Your task to perform on an android device: uninstall "AliExpress" Image 0: 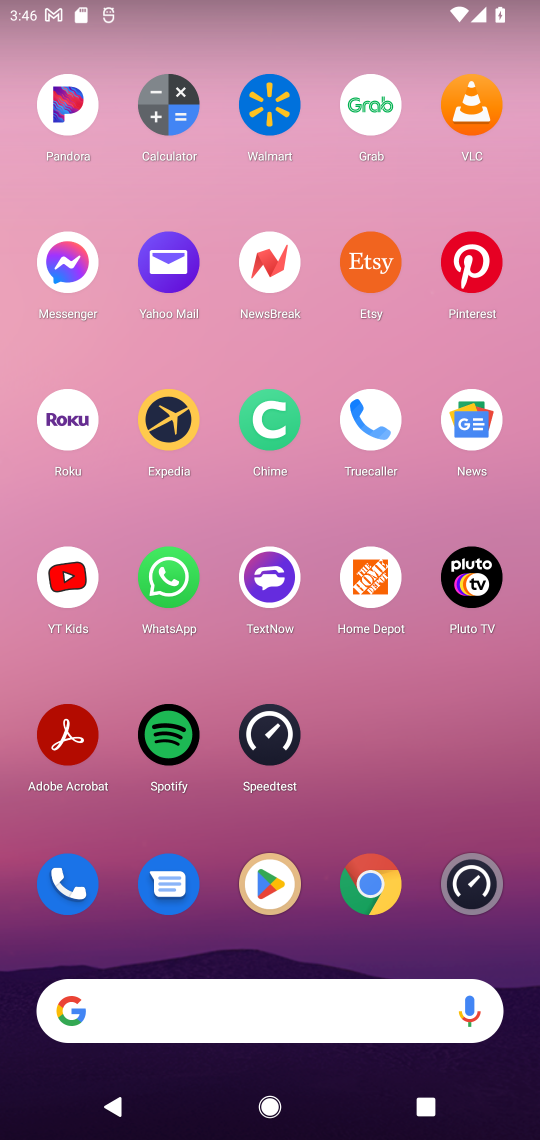
Step 0: click (278, 885)
Your task to perform on an android device: uninstall "AliExpress" Image 1: 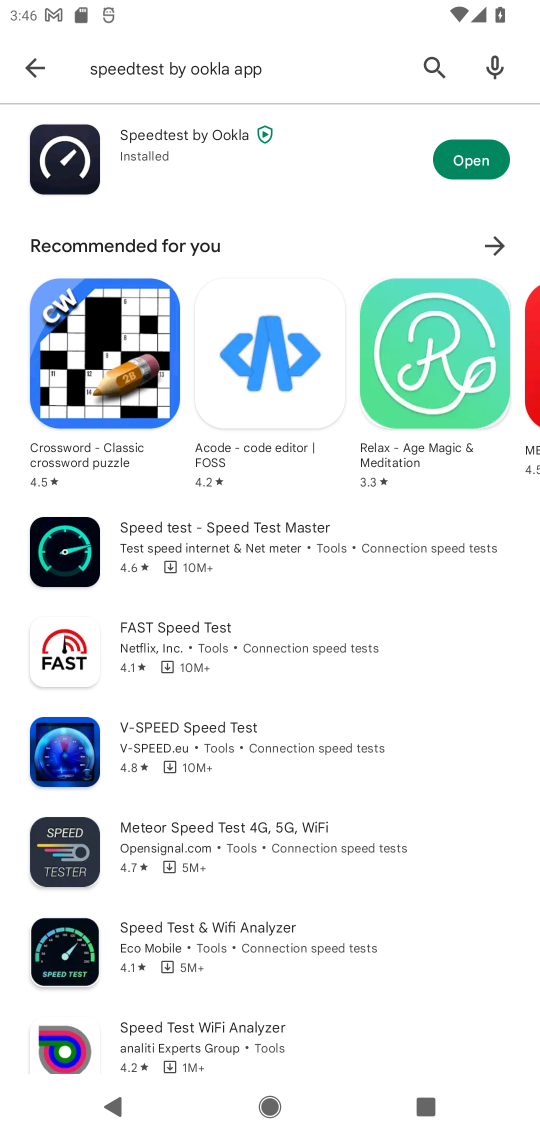
Step 1: click (232, 72)
Your task to perform on an android device: uninstall "AliExpress" Image 2: 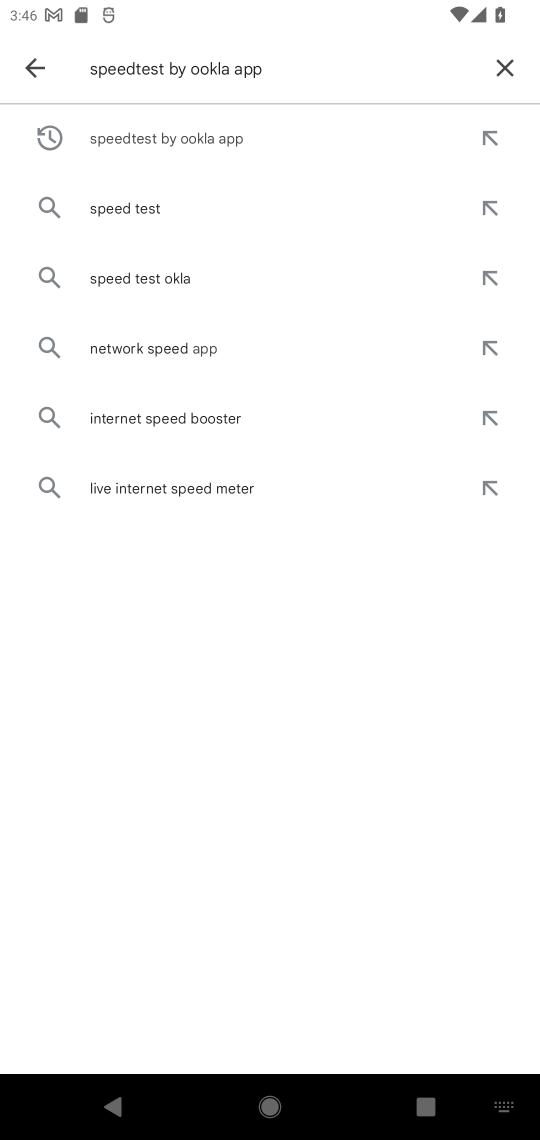
Step 2: click (504, 58)
Your task to perform on an android device: uninstall "AliExpress" Image 3: 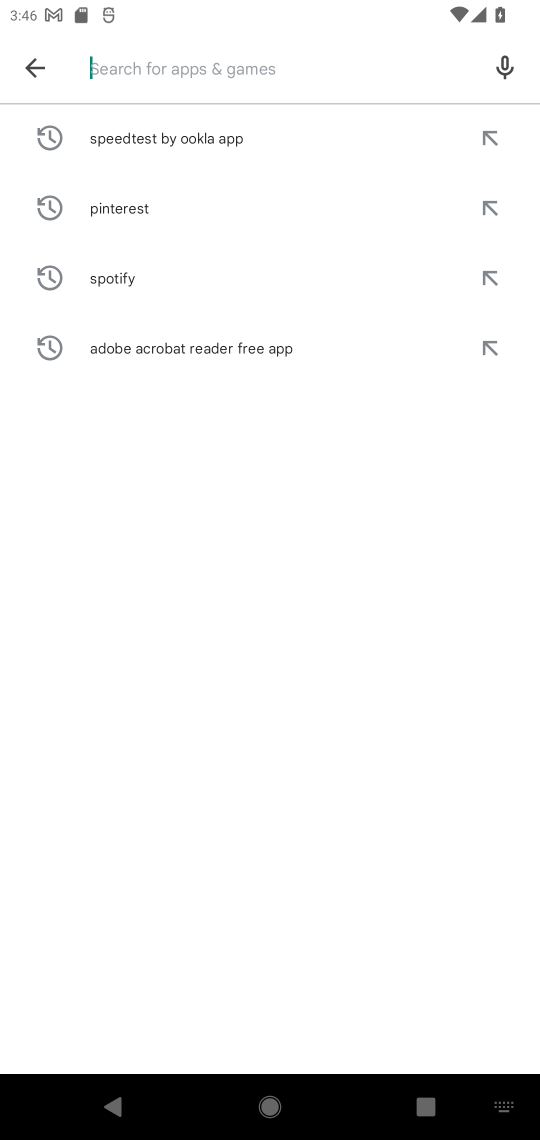
Step 3: type "aliexpress"
Your task to perform on an android device: uninstall "AliExpress" Image 4: 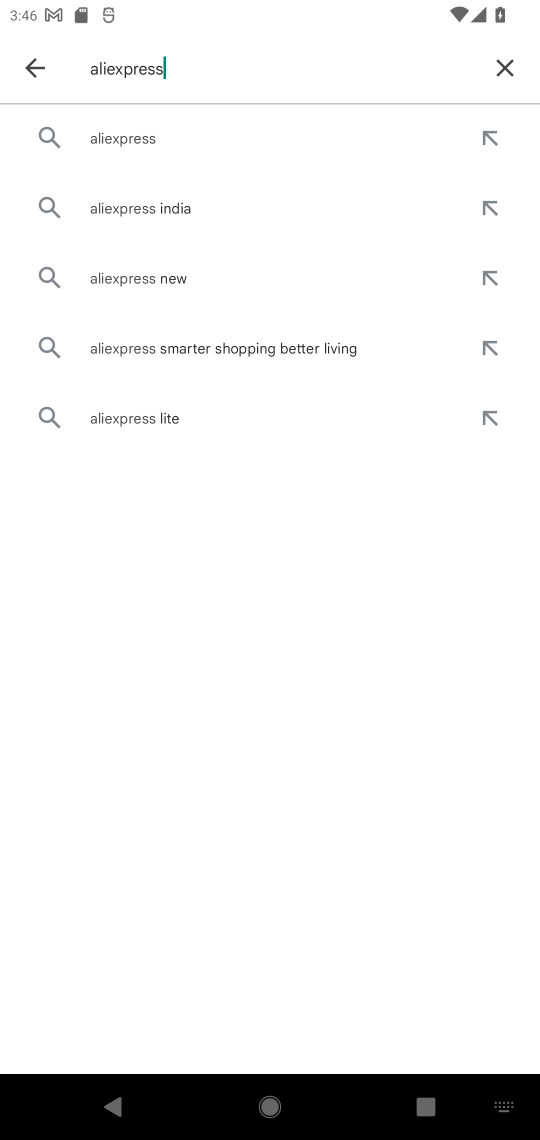
Step 4: click (166, 149)
Your task to perform on an android device: uninstall "AliExpress" Image 5: 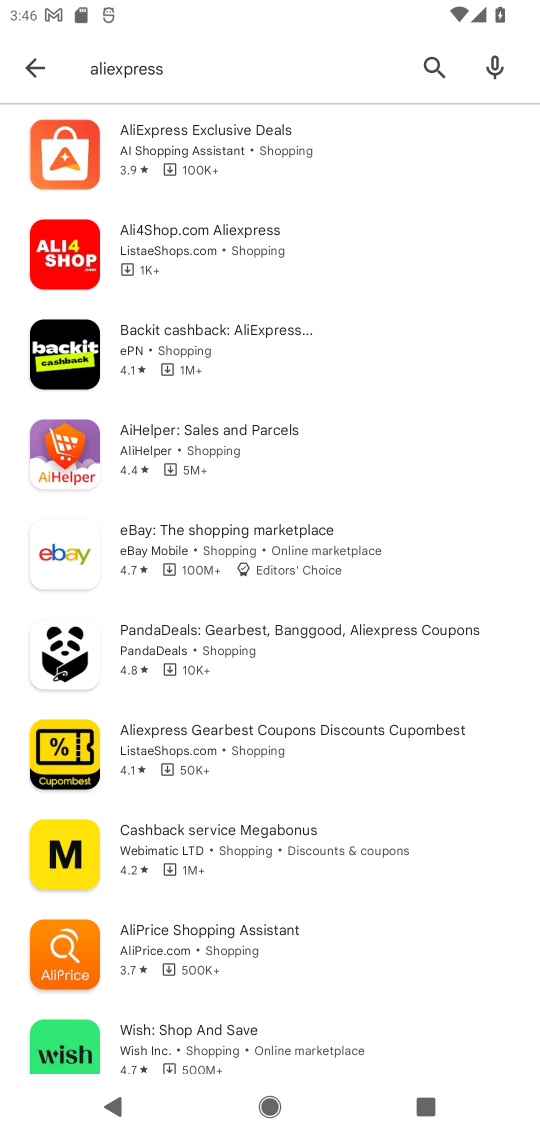
Step 5: click (264, 155)
Your task to perform on an android device: uninstall "AliExpress" Image 6: 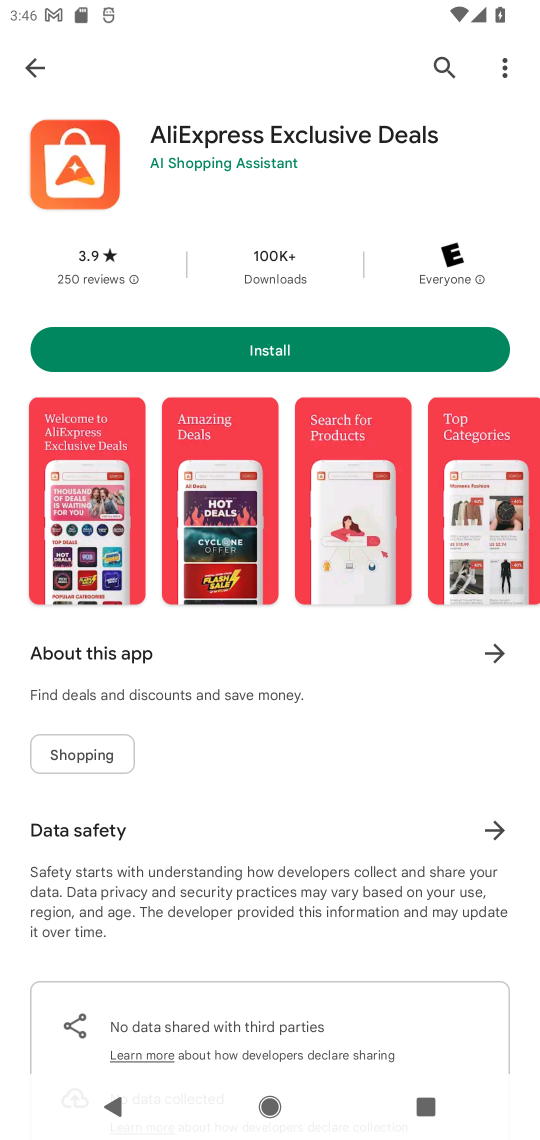
Step 6: task complete